Your task to perform on an android device: Go to battery settings Image 0: 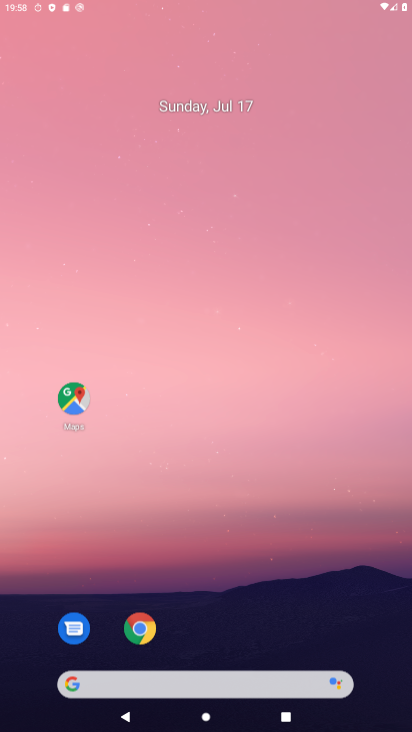
Step 0: press home button
Your task to perform on an android device: Go to battery settings Image 1: 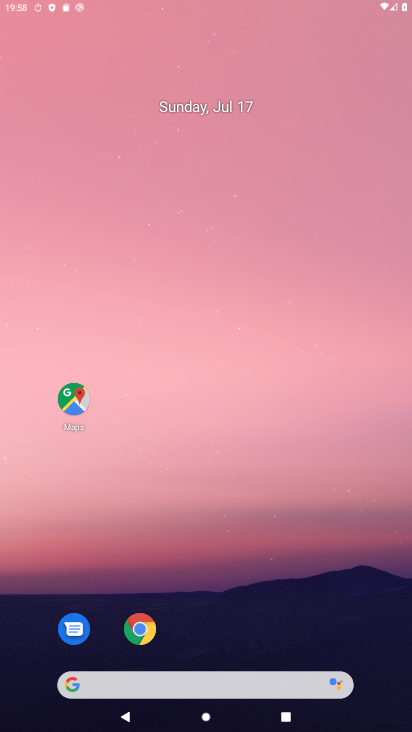
Step 1: press home button
Your task to perform on an android device: Go to battery settings Image 2: 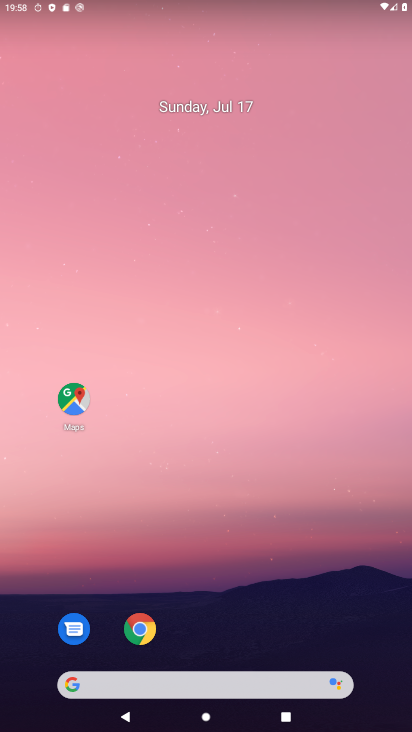
Step 2: drag from (282, 582) to (268, 10)
Your task to perform on an android device: Go to battery settings Image 3: 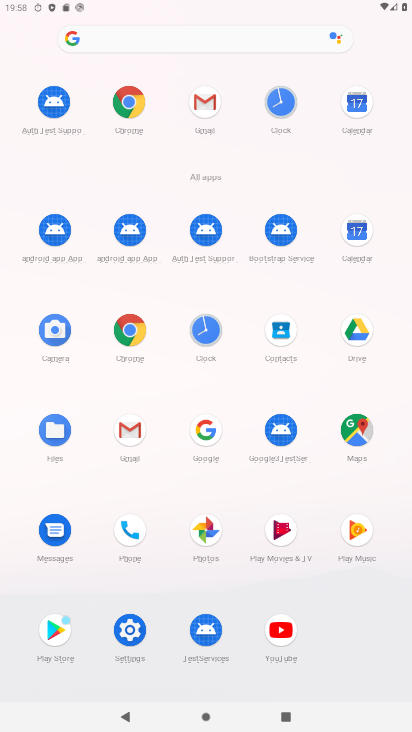
Step 3: click (122, 630)
Your task to perform on an android device: Go to battery settings Image 4: 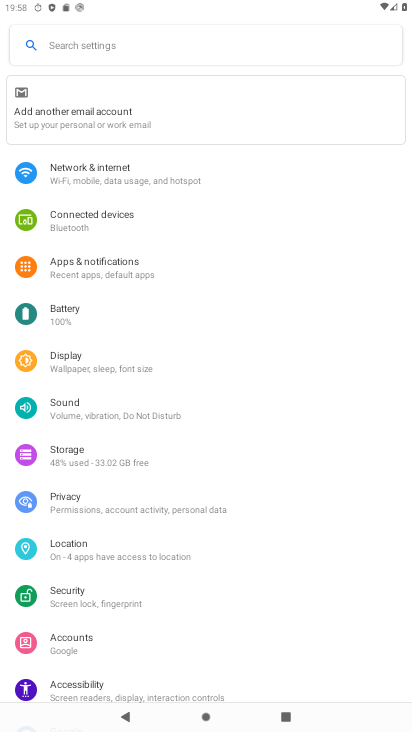
Step 4: click (56, 317)
Your task to perform on an android device: Go to battery settings Image 5: 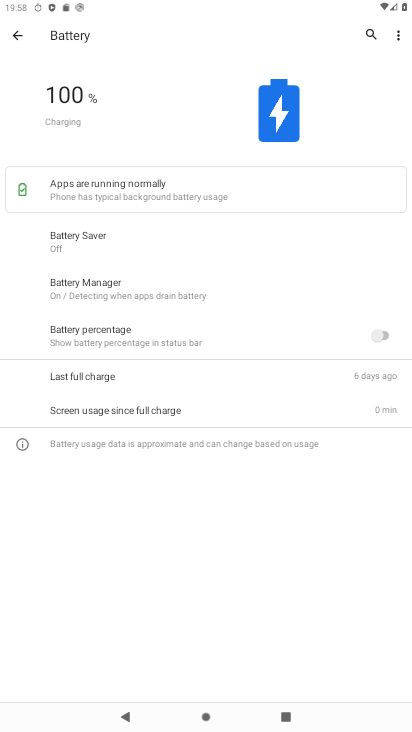
Step 5: task complete